Your task to perform on an android device: open a bookmark in the chrome app Image 0: 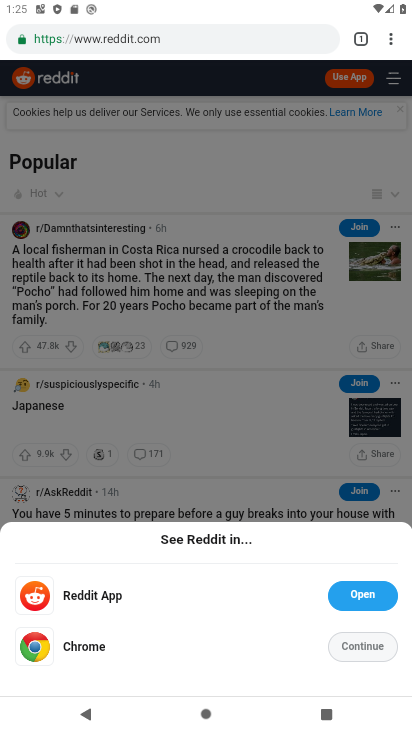
Step 0: drag from (386, 32) to (250, 188)
Your task to perform on an android device: open a bookmark in the chrome app Image 1: 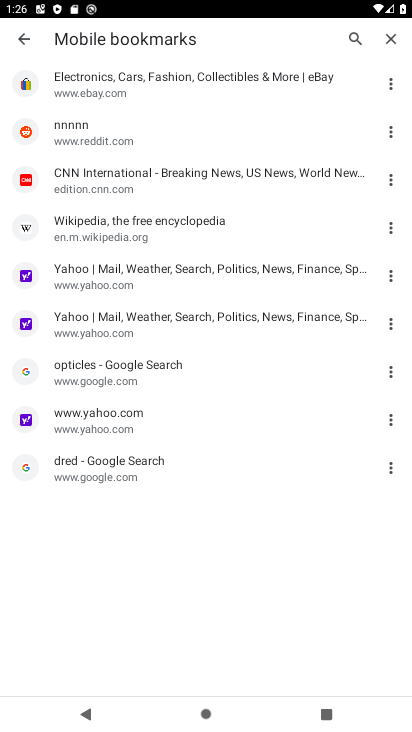
Step 1: task complete